Your task to perform on an android device: What is the news today? Image 0: 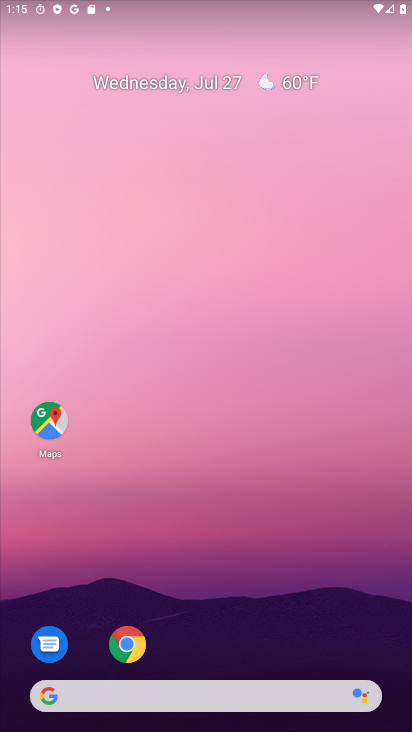
Step 0: click (291, 44)
Your task to perform on an android device: What is the news today? Image 1: 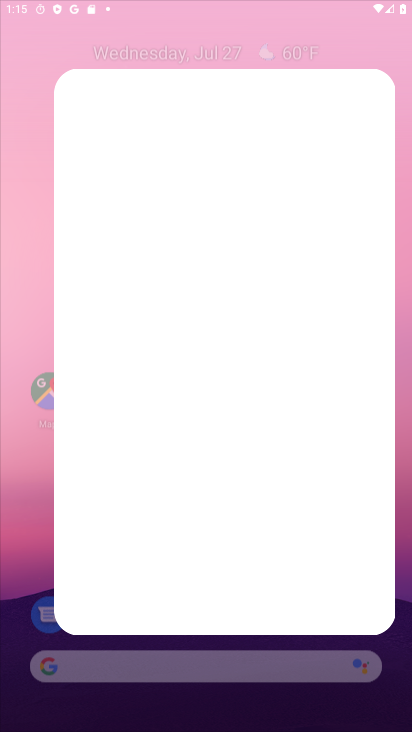
Step 1: drag from (213, 647) to (237, 203)
Your task to perform on an android device: What is the news today? Image 2: 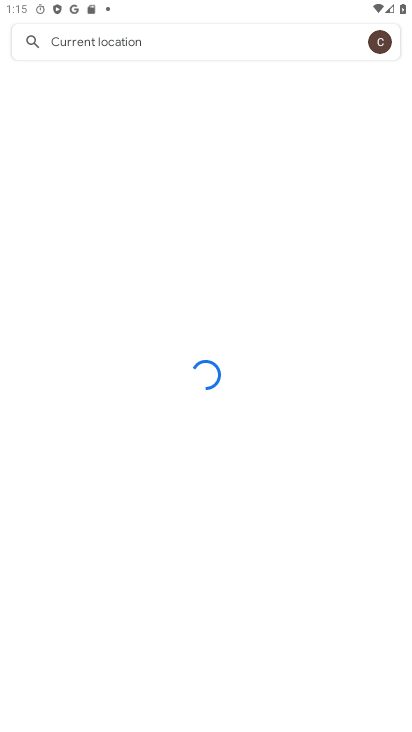
Step 2: press home button
Your task to perform on an android device: What is the news today? Image 3: 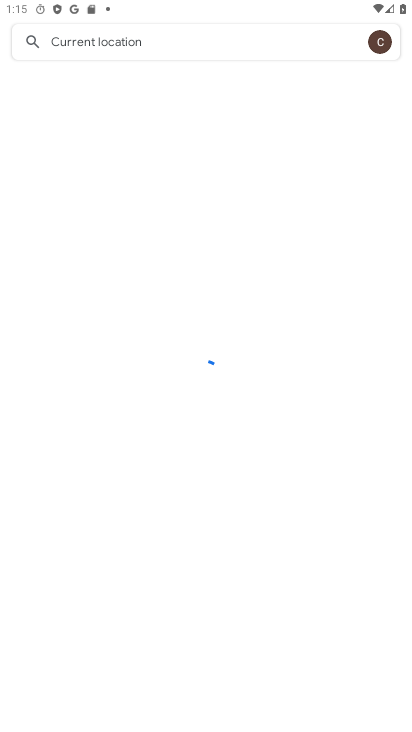
Step 3: press home button
Your task to perform on an android device: What is the news today? Image 4: 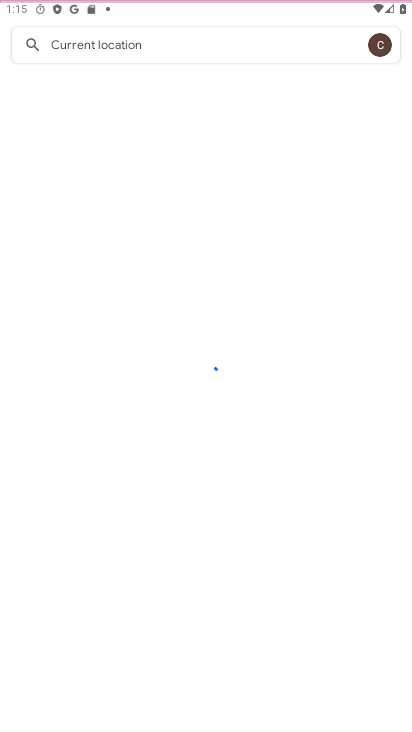
Step 4: click (290, 179)
Your task to perform on an android device: What is the news today? Image 5: 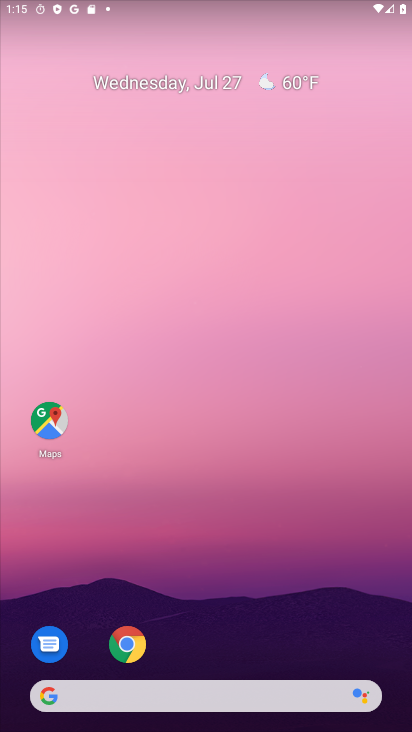
Step 5: drag from (248, 617) to (340, 179)
Your task to perform on an android device: What is the news today? Image 6: 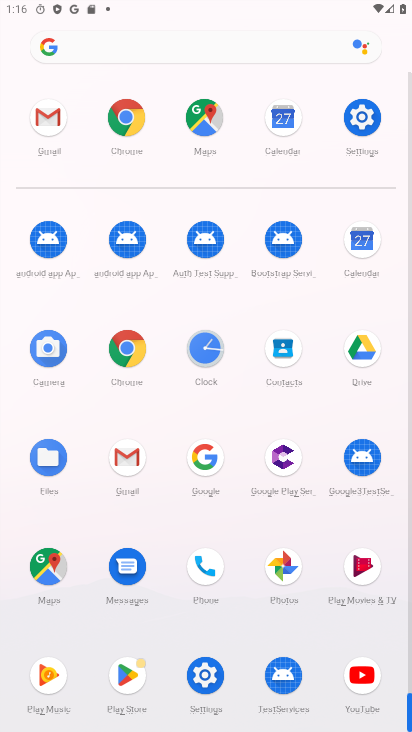
Step 6: click (210, 44)
Your task to perform on an android device: What is the news today? Image 7: 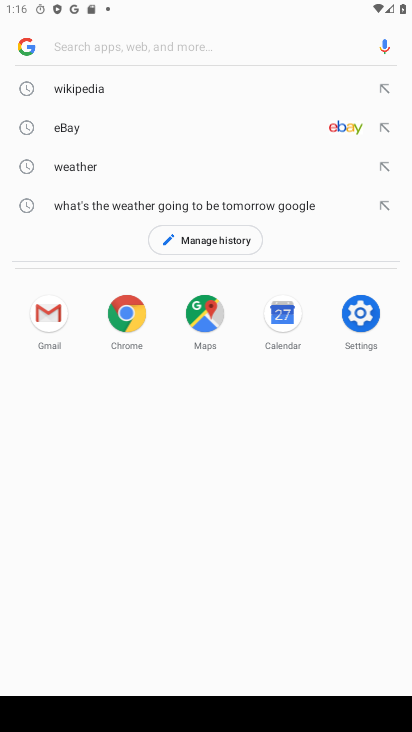
Step 7: type "news today"
Your task to perform on an android device: What is the news today? Image 8: 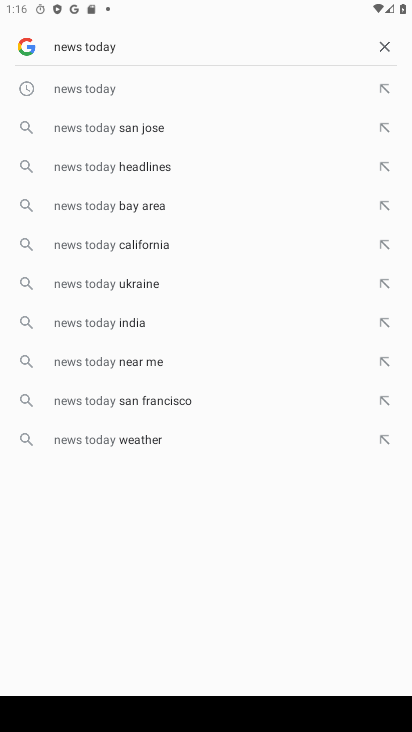
Step 8: click (128, 92)
Your task to perform on an android device: What is the news today? Image 9: 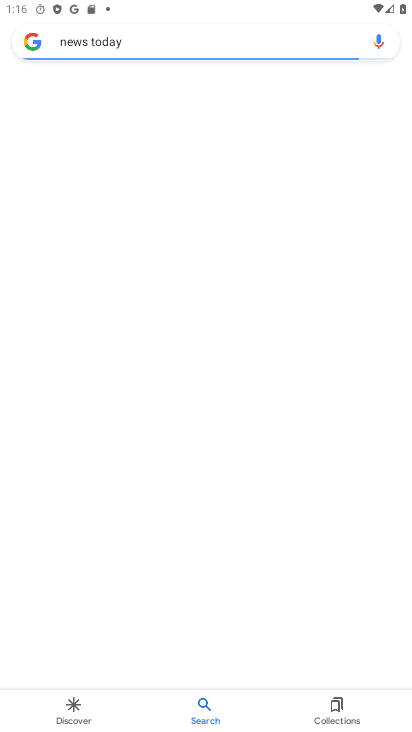
Step 9: task complete